Your task to perform on an android device: delete a single message in the gmail app Image 0: 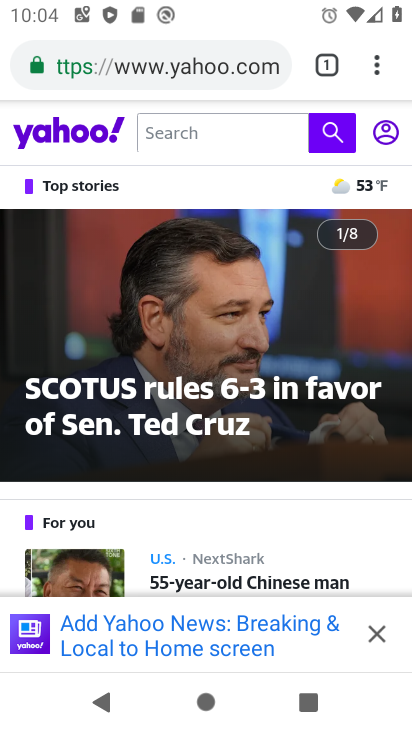
Step 0: press home button
Your task to perform on an android device: delete a single message in the gmail app Image 1: 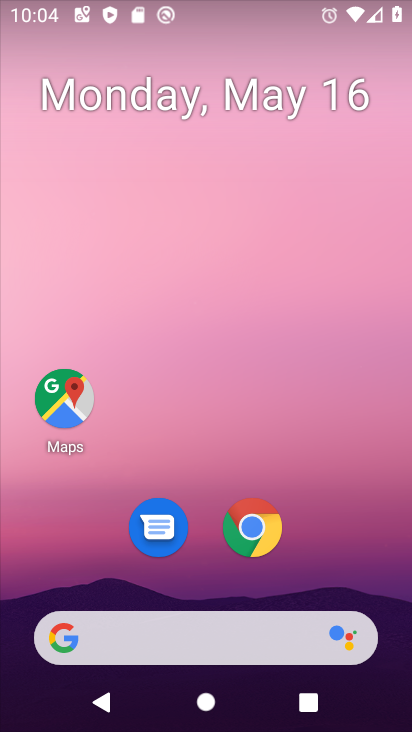
Step 1: drag from (360, 583) to (9, 1)
Your task to perform on an android device: delete a single message in the gmail app Image 2: 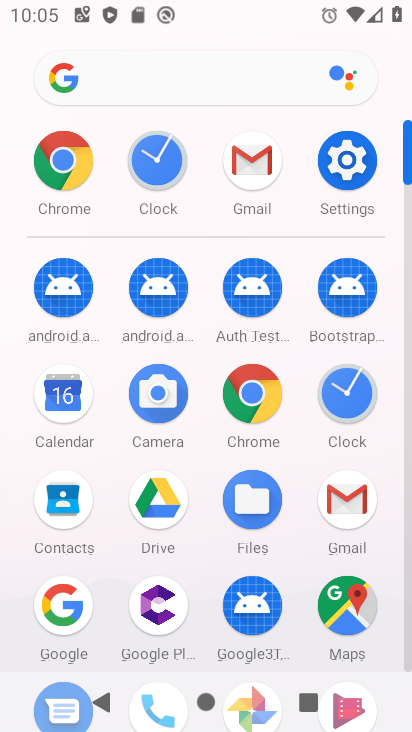
Step 2: click (251, 168)
Your task to perform on an android device: delete a single message in the gmail app Image 3: 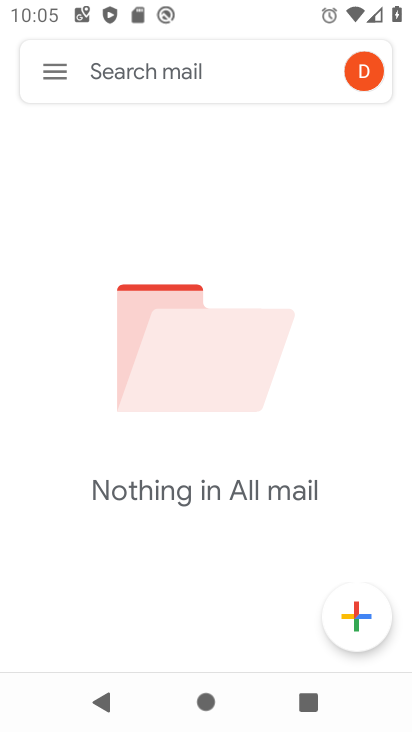
Step 3: task complete